Your task to perform on an android device: Go to display settings Image 0: 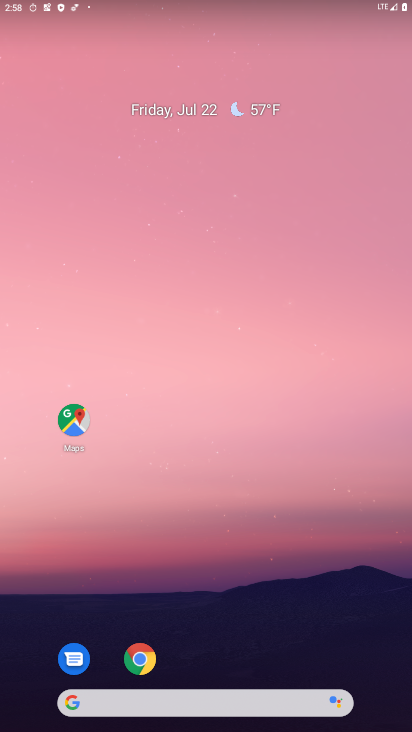
Step 0: drag from (243, 645) to (230, 56)
Your task to perform on an android device: Go to display settings Image 1: 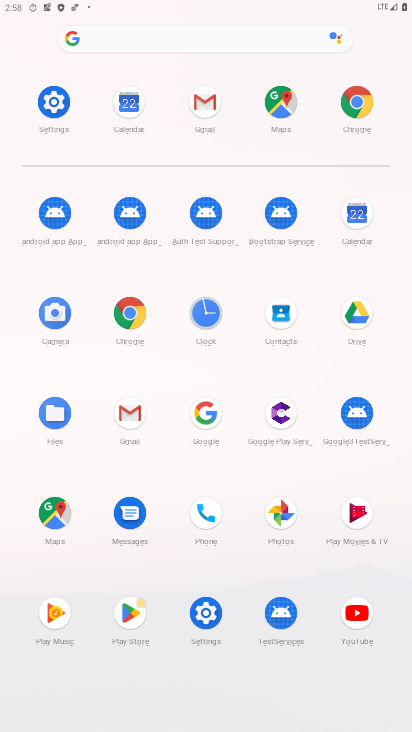
Step 1: click (58, 93)
Your task to perform on an android device: Go to display settings Image 2: 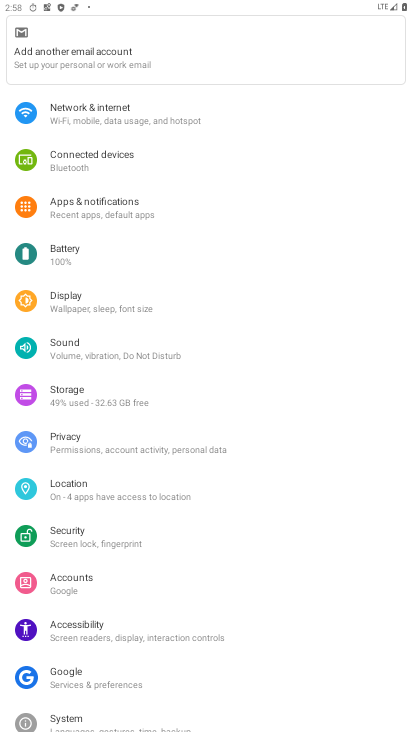
Step 2: click (68, 297)
Your task to perform on an android device: Go to display settings Image 3: 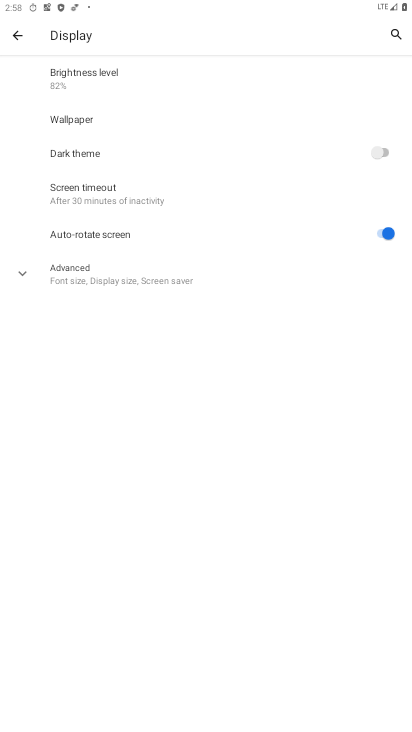
Step 3: task complete